Your task to perform on an android device: toggle notifications settings in the gmail app Image 0: 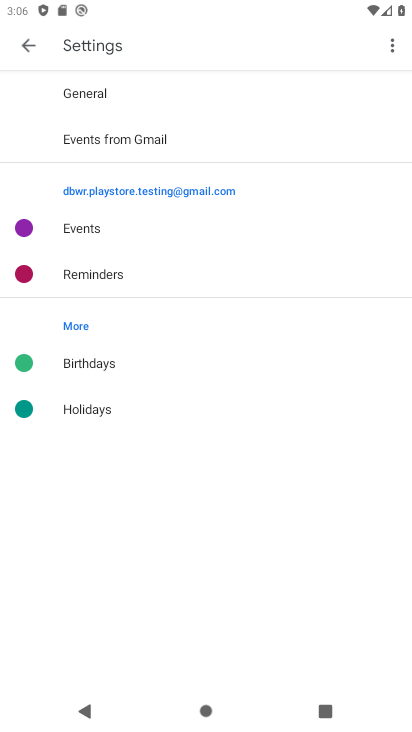
Step 0: press home button
Your task to perform on an android device: toggle notifications settings in the gmail app Image 1: 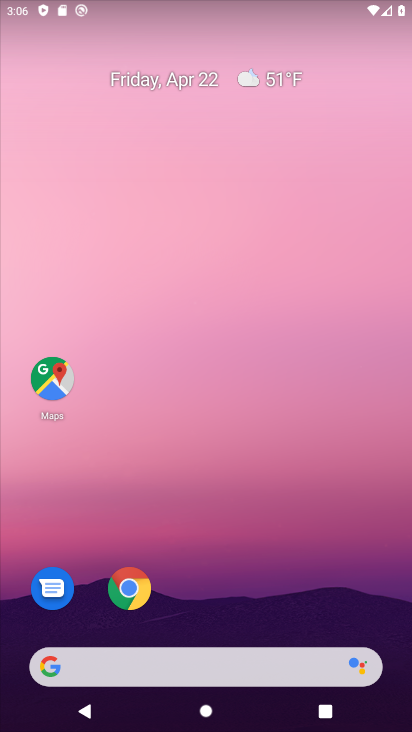
Step 1: drag from (345, 599) to (348, 92)
Your task to perform on an android device: toggle notifications settings in the gmail app Image 2: 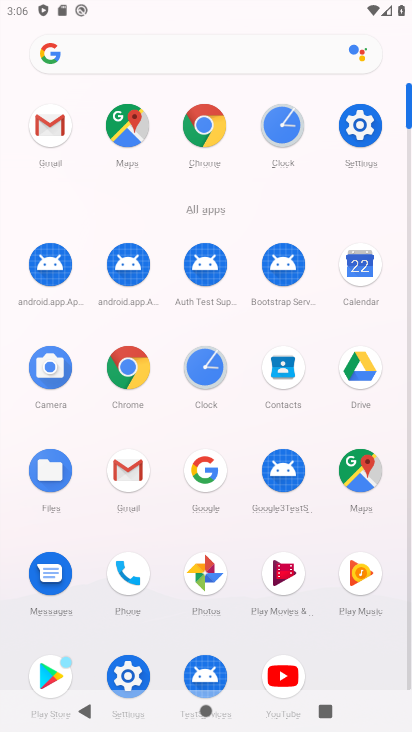
Step 2: click (136, 474)
Your task to perform on an android device: toggle notifications settings in the gmail app Image 3: 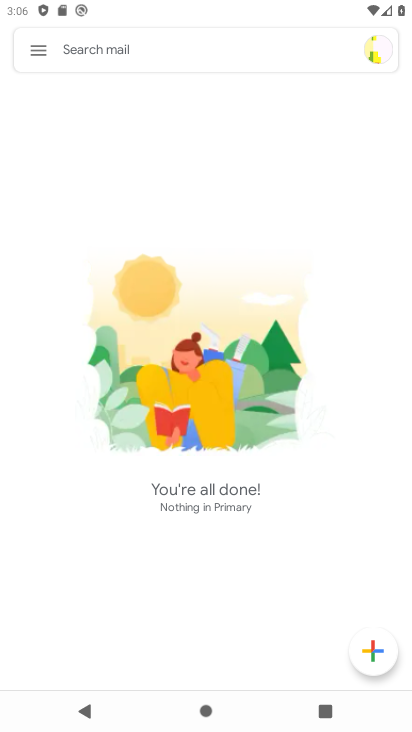
Step 3: click (38, 50)
Your task to perform on an android device: toggle notifications settings in the gmail app Image 4: 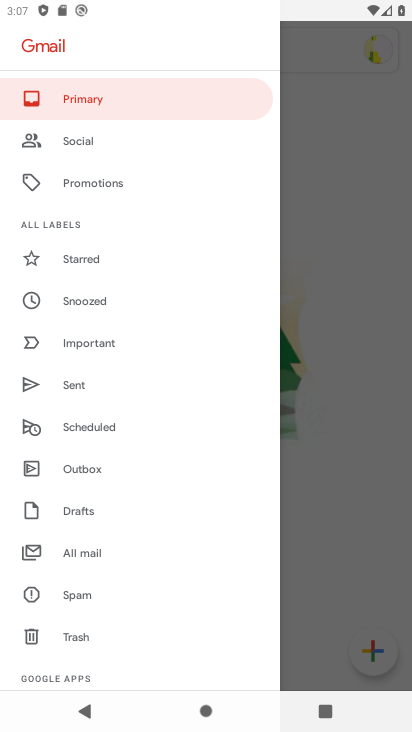
Step 4: drag from (181, 586) to (197, 401)
Your task to perform on an android device: toggle notifications settings in the gmail app Image 5: 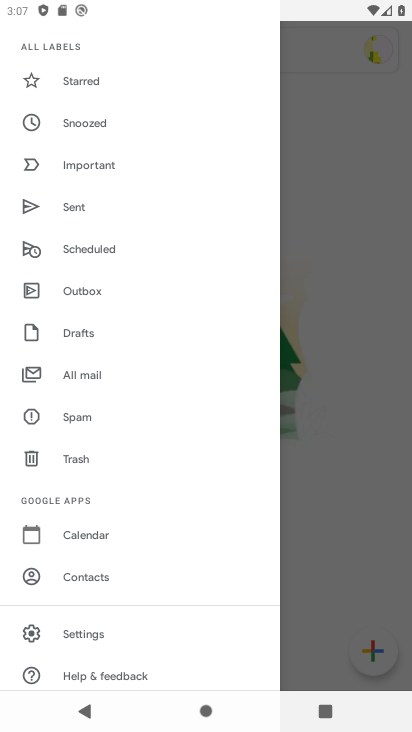
Step 5: drag from (188, 600) to (205, 464)
Your task to perform on an android device: toggle notifications settings in the gmail app Image 6: 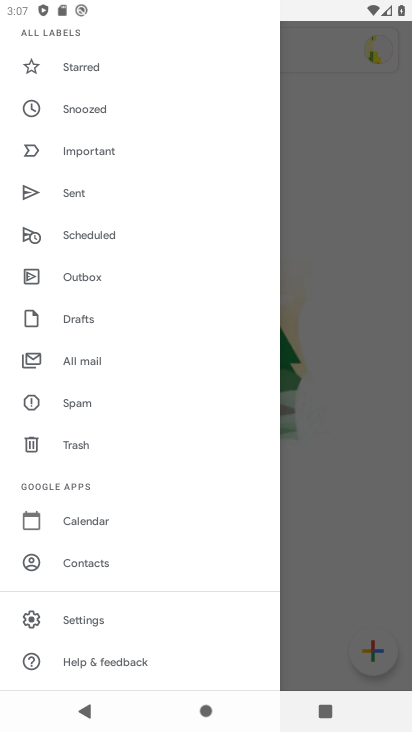
Step 6: click (76, 621)
Your task to perform on an android device: toggle notifications settings in the gmail app Image 7: 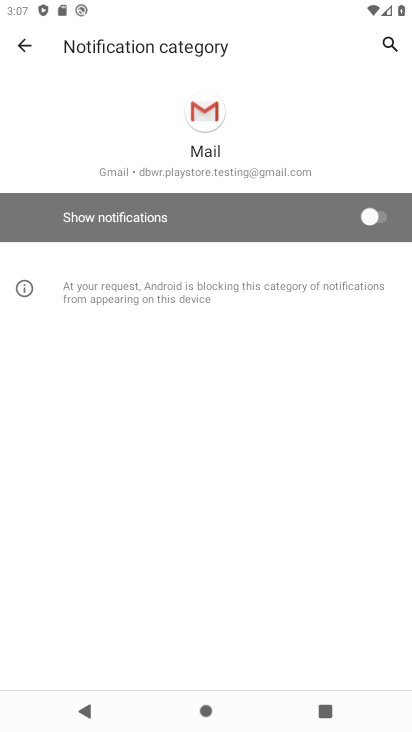
Step 7: click (378, 219)
Your task to perform on an android device: toggle notifications settings in the gmail app Image 8: 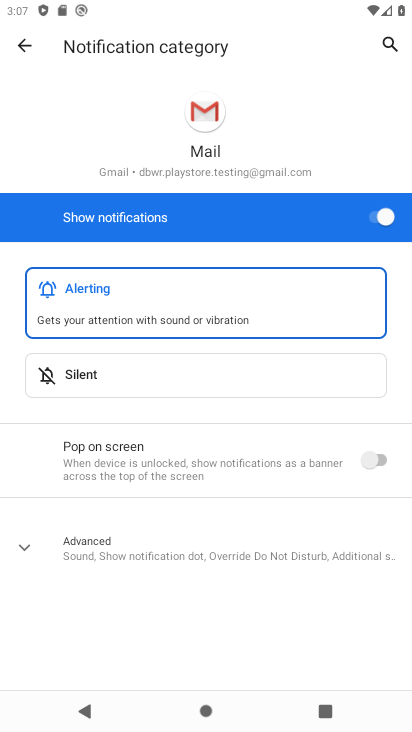
Step 8: task complete